Your task to perform on an android device: turn on the 12-hour format for clock Image 0: 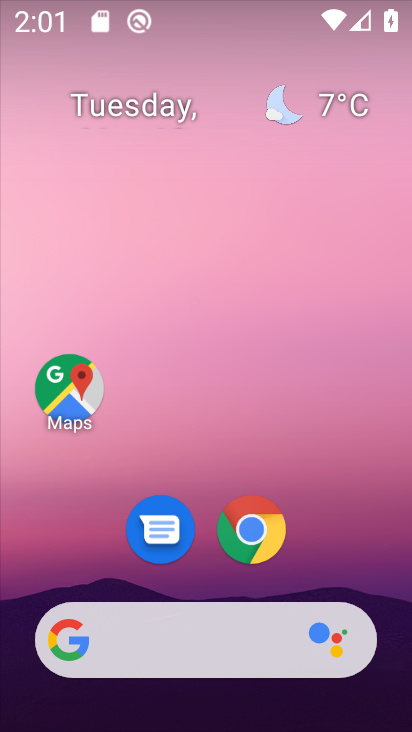
Step 0: drag from (340, 527) to (232, 45)
Your task to perform on an android device: turn on the 12-hour format for clock Image 1: 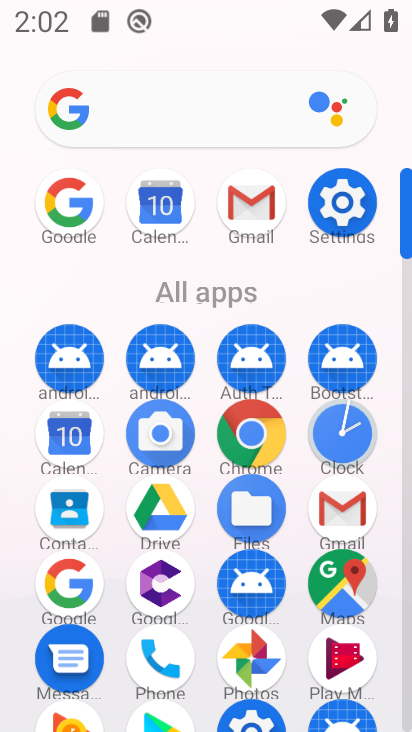
Step 1: click (343, 435)
Your task to perform on an android device: turn on the 12-hour format for clock Image 2: 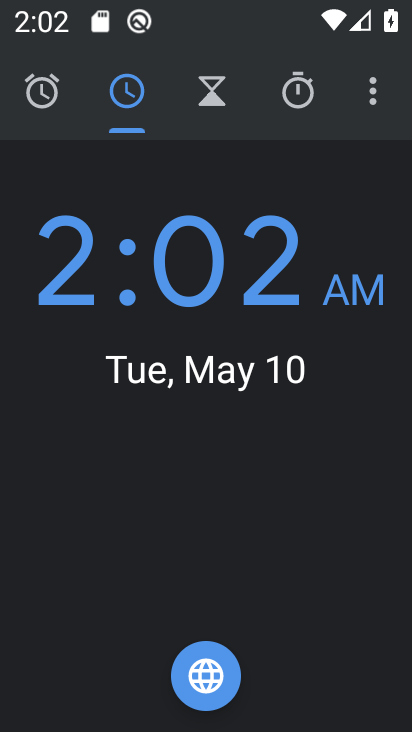
Step 2: click (375, 91)
Your task to perform on an android device: turn on the 12-hour format for clock Image 3: 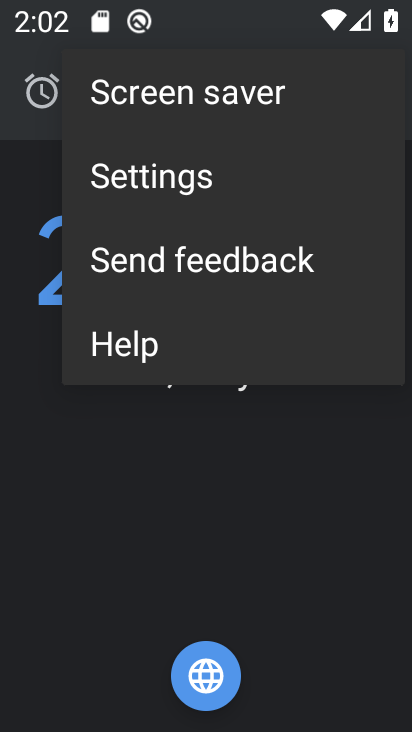
Step 3: click (145, 183)
Your task to perform on an android device: turn on the 12-hour format for clock Image 4: 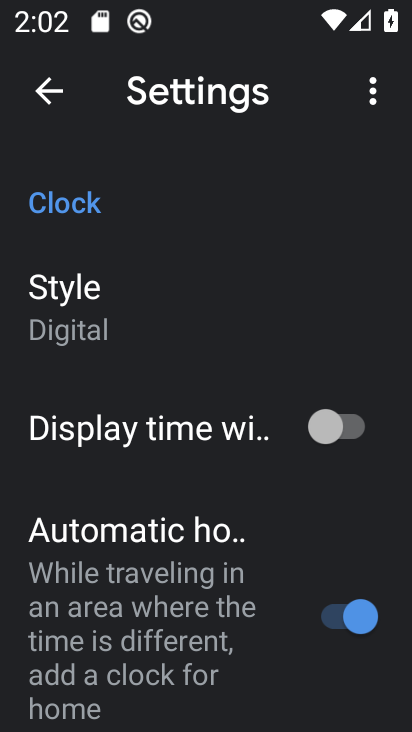
Step 4: drag from (139, 495) to (212, 273)
Your task to perform on an android device: turn on the 12-hour format for clock Image 5: 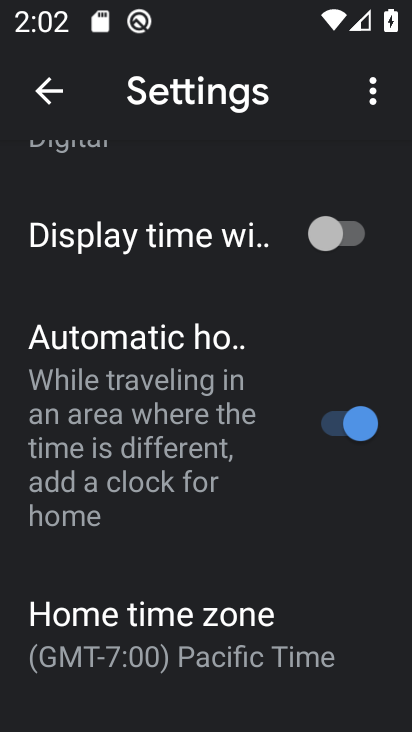
Step 5: drag from (193, 551) to (221, 325)
Your task to perform on an android device: turn on the 12-hour format for clock Image 6: 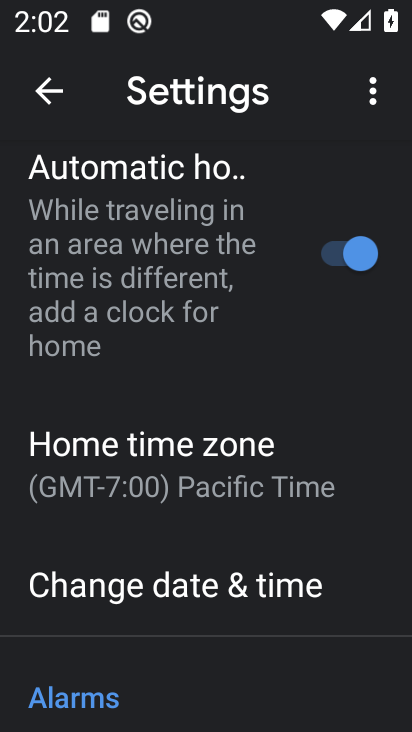
Step 6: click (201, 583)
Your task to perform on an android device: turn on the 12-hour format for clock Image 7: 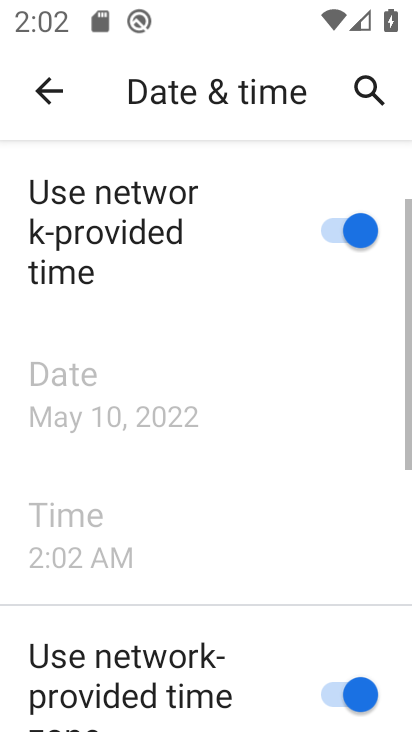
Step 7: task complete